Your task to perform on an android device: What is the recent news? Image 0: 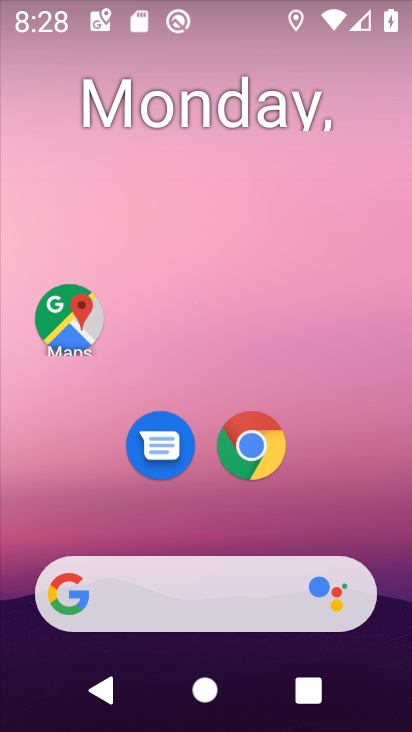
Step 0: drag from (10, 246) to (411, 235)
Your task to perform on an android device: What is the recent news? Image 1: 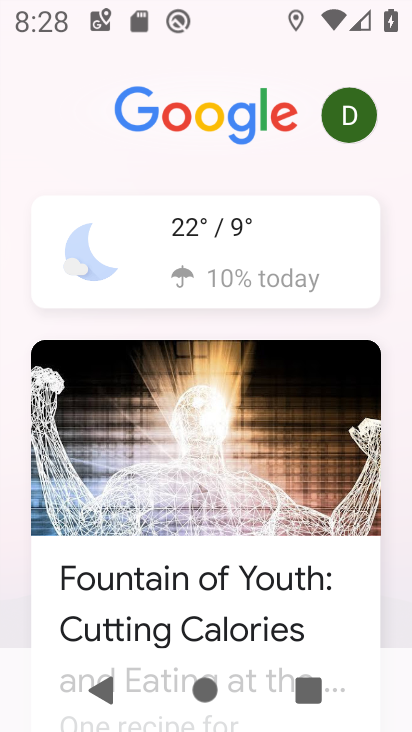
Step 1: task complete